Your task to perform on an android device: open a bookmark in the chrome app Image 0: 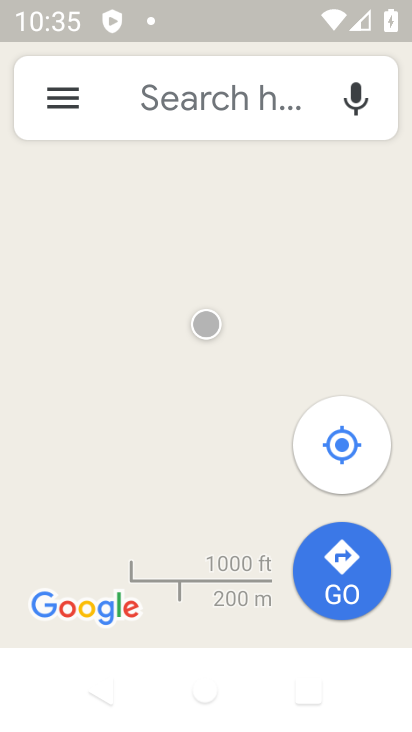
Step 0: press home button
Your task to perform on an android device: open a bookmark in the chrome app Image 1: 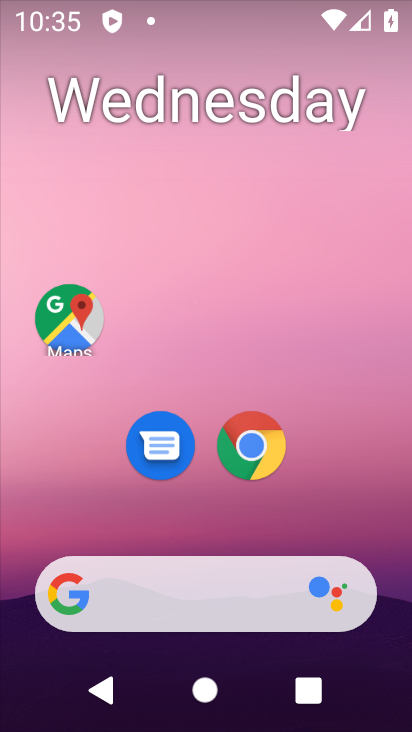
Step 1: click (242, 461)
Your task to perform on an android device: open a bookmark in the chrome app Image 2: 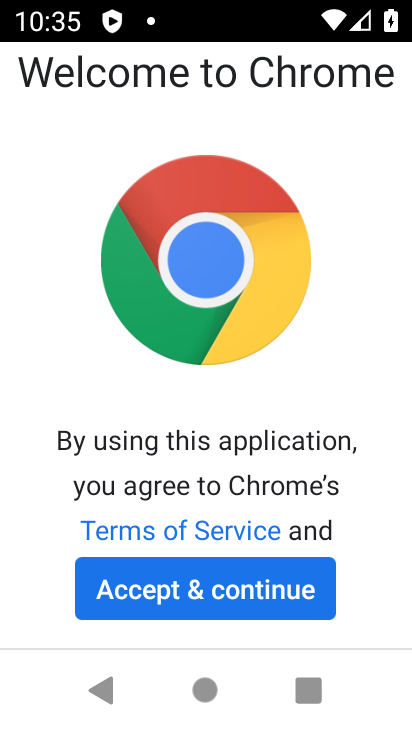
Step 2: click (225, 599)
Your task to perform on an android device: open a bookmark in the chrome app Image 3: 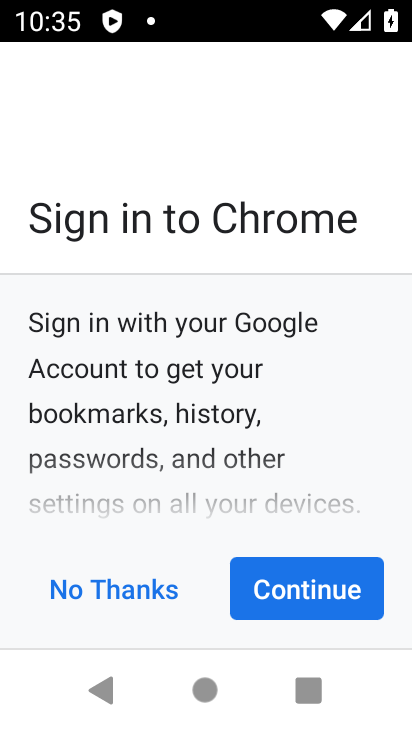
Step 3: click (295, 599)
Your task to perform on an android device: open a bookmark in the chrome app Image 4: 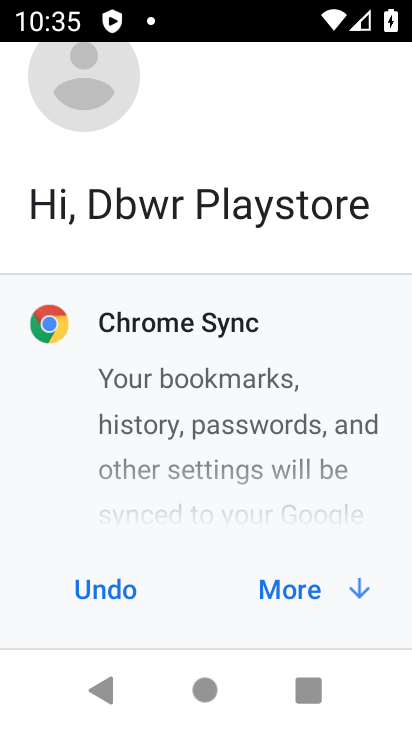
Step 4: click (295, 599)
Your task to perform on an android device: open a bookmark in the chrome app Image 5: 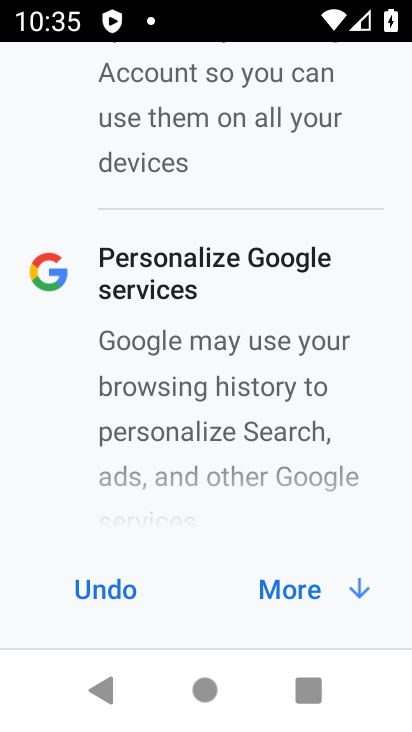
Step 5: click (295, 599)
Your task to perform on an android device: open a bookmark in the chrome app Image 6: 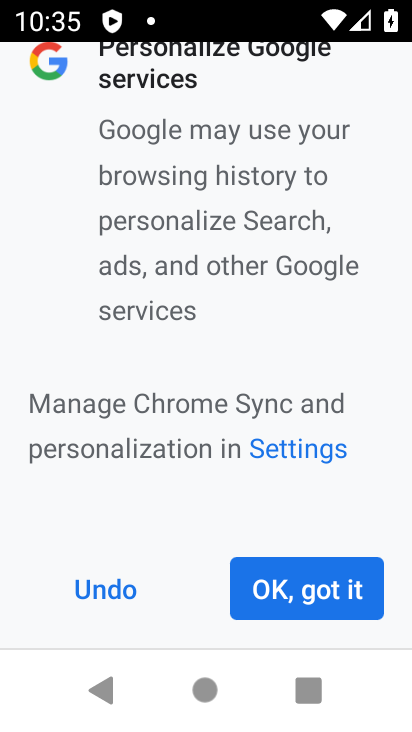
Step 6: click (295, 599)
Your task to perform on an android device: open a bookmark in the chrome app Image 7: 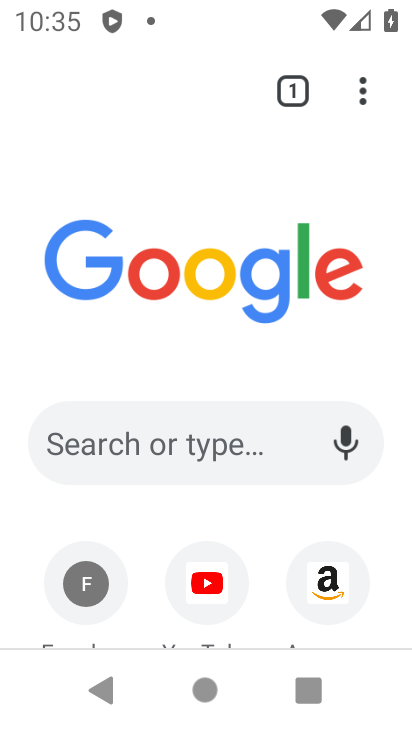
Step 7: task complete